Your task to perform on an android device: What is the news today? Image 0: 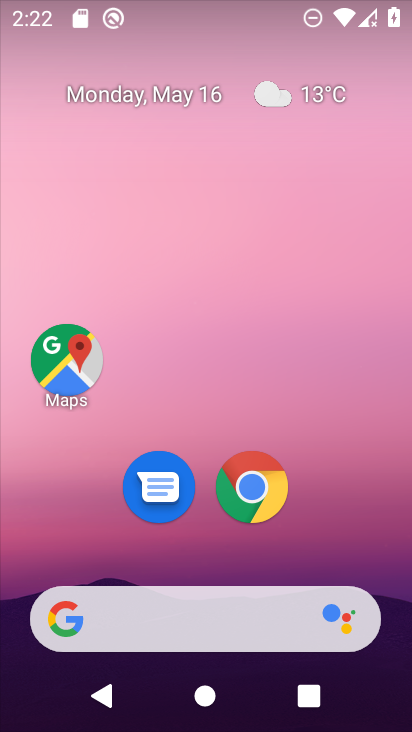
Step 0: drag from (387, 532) to (352, 256)
Your task to perform on an android device: What is the news today? Image 1: 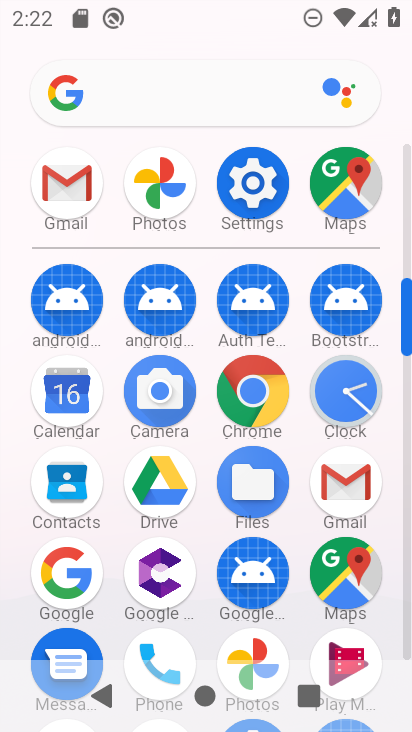
Step 1: click (81, 562)
Your task to perform on an android device: What is the news today? Image 2: 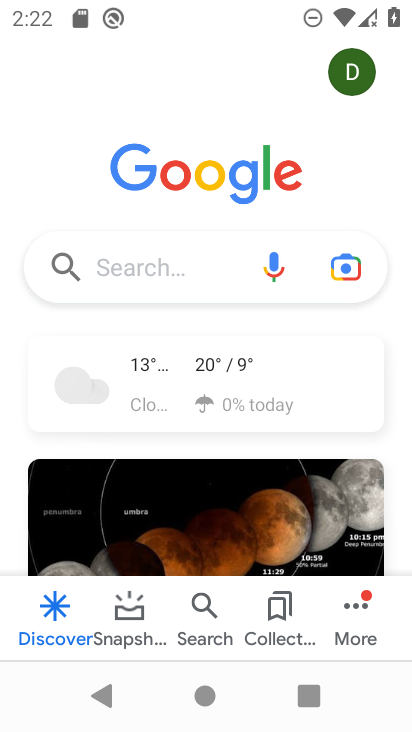
Step 2: task complete